Your task to perform on an android device: Open Google Chrome and open the bookmarks view Image 0: 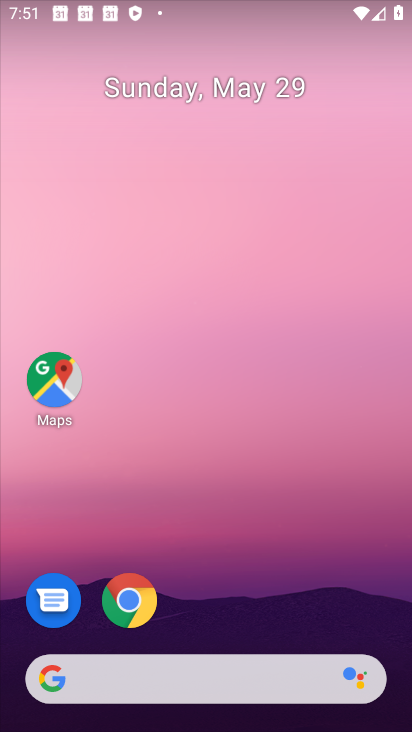
Step 0: drag from (277, 599) to (283, 215)
Your task to perform on an android device: Open Google Chrome and open the bookmarks view Image 1: 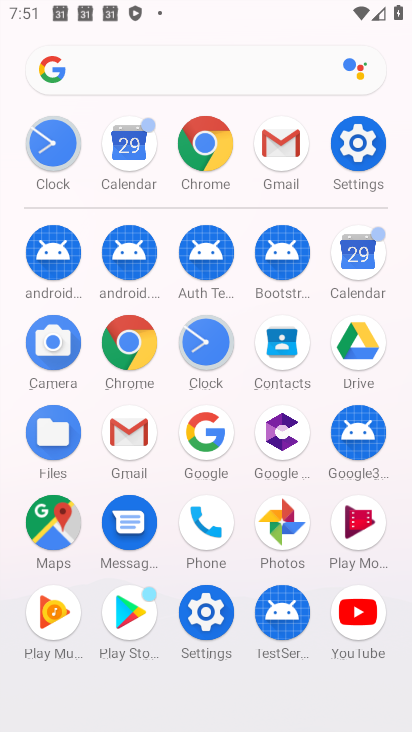
Step 1: click (135, 357)
Your task to perform on an android device: Open Google Chrome and open the bookmarks view Image 2: 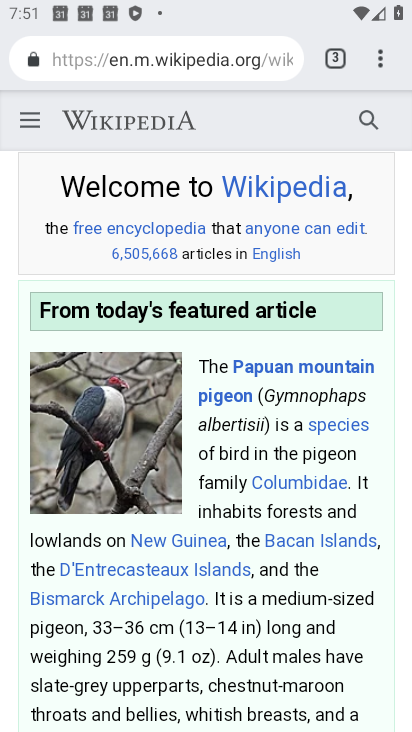
Step 2: task complete